Your task to perform on an android device: turn off notifications settings in the gmail app Image 0: 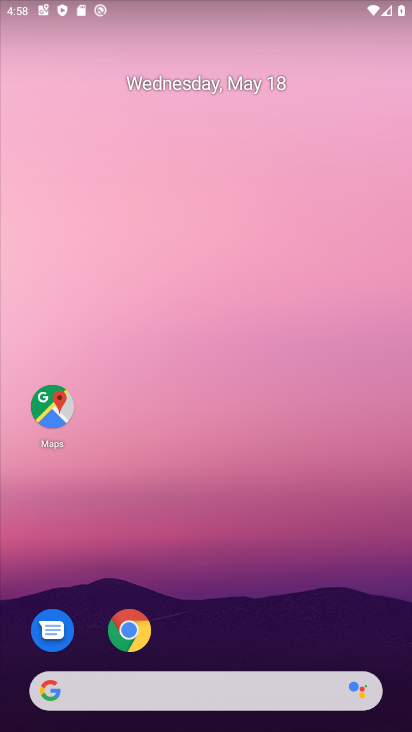
Step 0: drag from (218, 665) to (214, 125)
Your task to perform on an android device: turn off notifications settings in the gmail app Image 1: 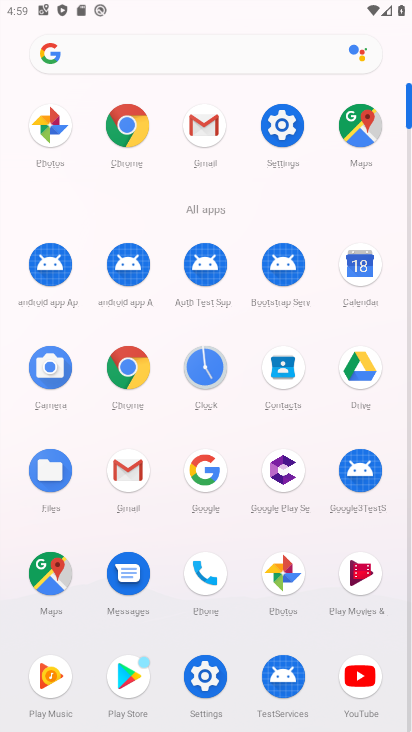
Step 1: click (210, 132)
Your task to perform on an android device: turn off notifications settings in the gmail app Image 2: 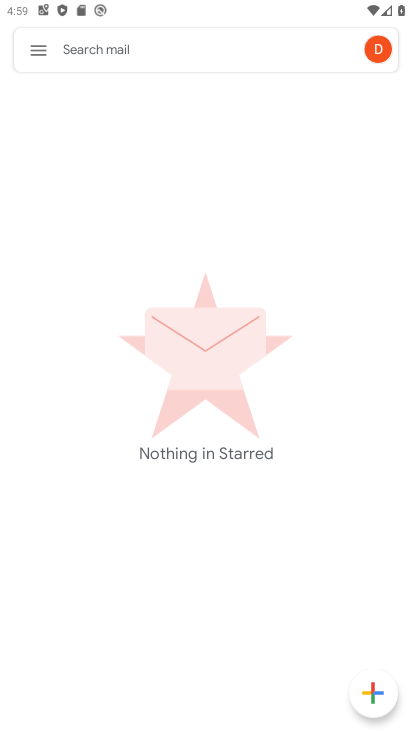
Step 2: click (29, 46)
Your task to perform on an android device: turn off notifications settings in the gmail app Image 3: 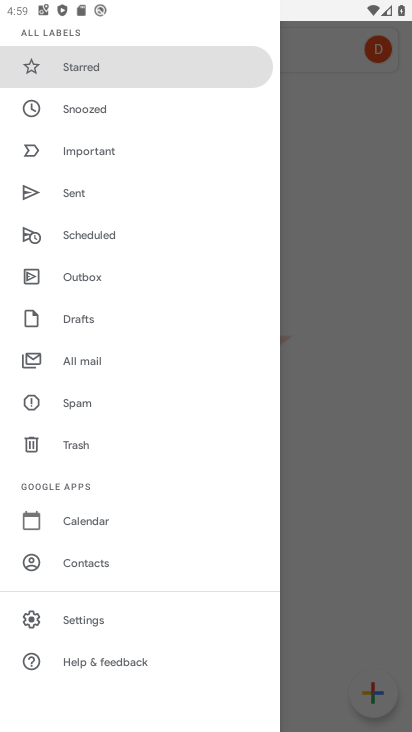
Step 3: click (72, 618)
Your task to perform on an android device: turn off notifications settings in the gmail app Image 4: 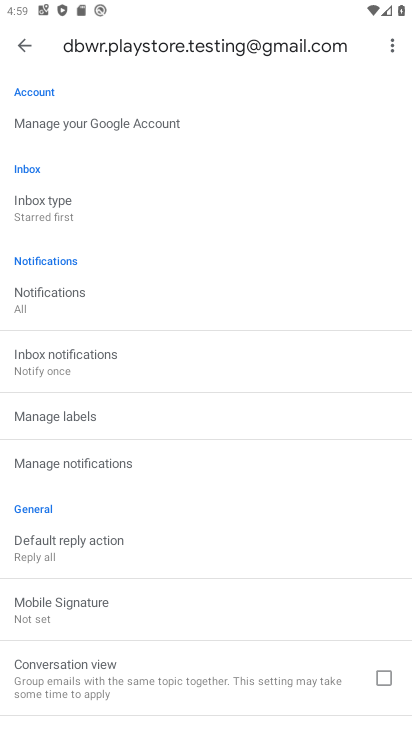
Step 4: drag from (110, 689) to (110, 379)
Your task to perform on an android device: turn off notifications settings in the gmail app Image 5: 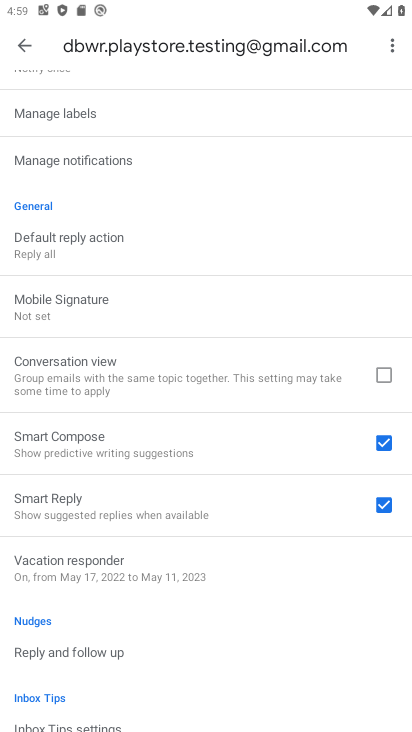
Step 5: drag from (115, 89) to (165, 559)
Your task to perform on an android device: turn off notifications settings in the gmail app Image 6: 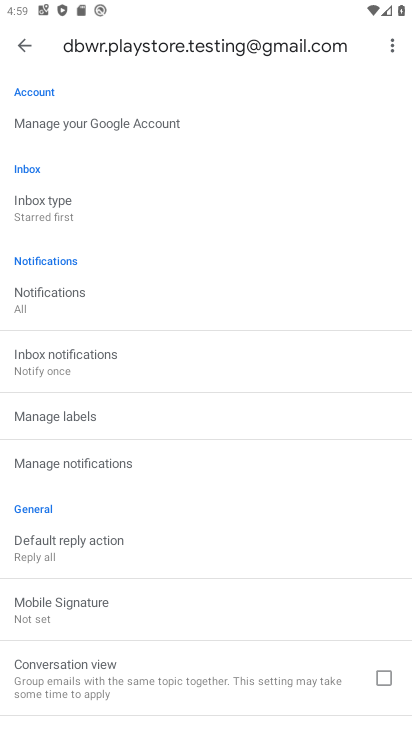
Step 6: click (23, 51)
Your task to perform on an android device: turn off notifications settings in the gmail app Image 7: 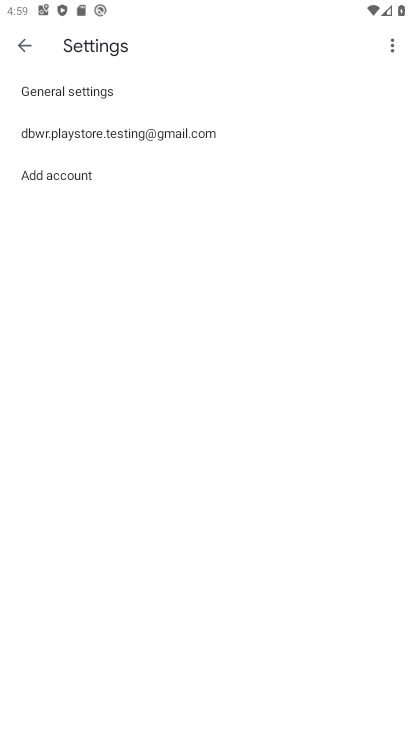
Step 7: click (63, 91)
Your task to perform on an android device: turn off notifications settings in the gmail app Image 8: 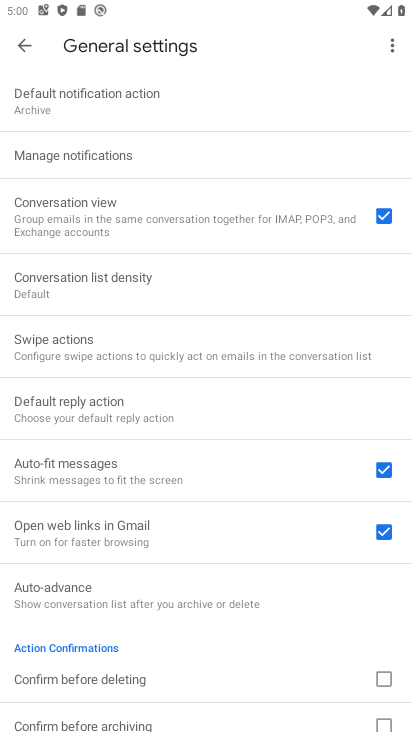
Step 8: drag from (169, 730) to (177, 407)
Your task to perform on an android device: turn off notifications settings in the gmail app Image 9: 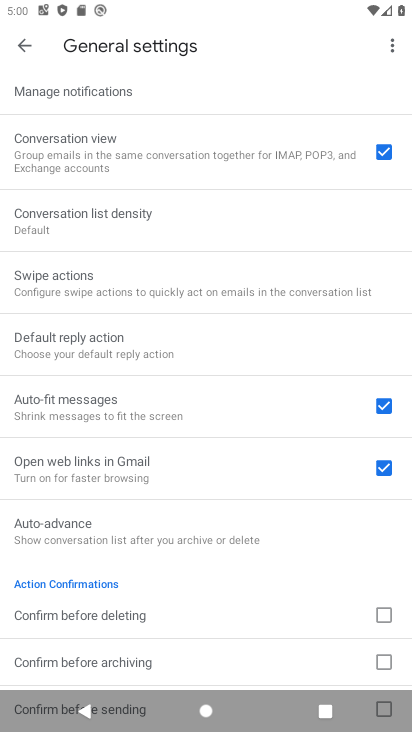
Step 9: drag from (168, 644) to (149, 470)
Your task to perform on an android device: turn off notifications settings in the gmail app Image 10: 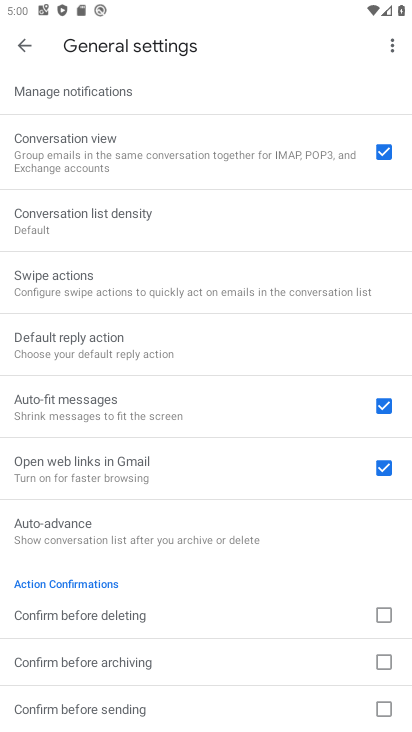
Step 10: click (78, 95)
Your task to perform on an android device: turn off notifications settings in the gmail app Image 11: 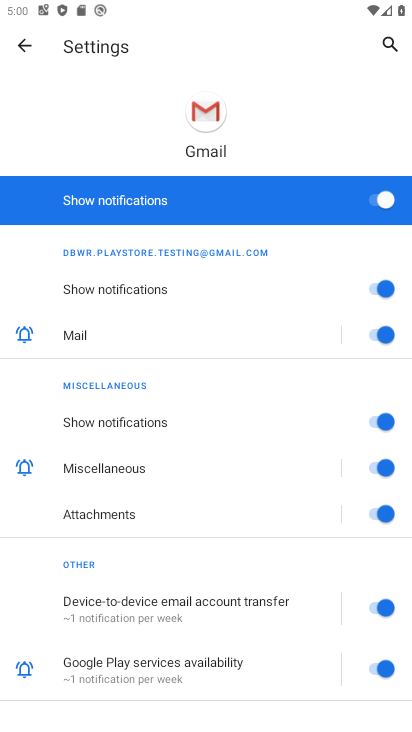
Step 11: click (371, 200)
Your task to perform on an android device: turn off notifications settings in the gmail app Image 12: 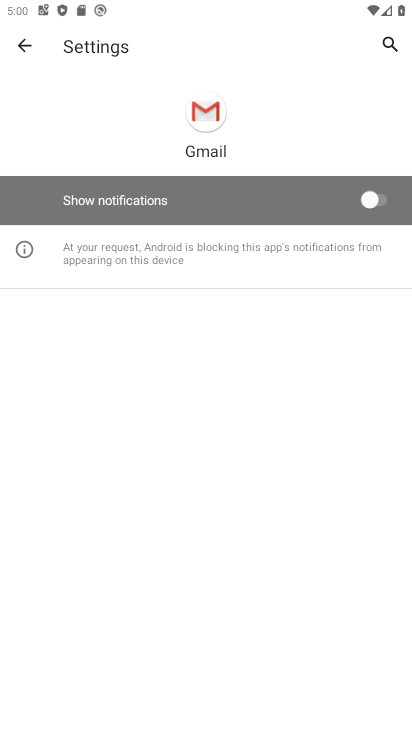
Step 12: task complete